Your task to perform on an android device: turn off airplane mode Image 0: 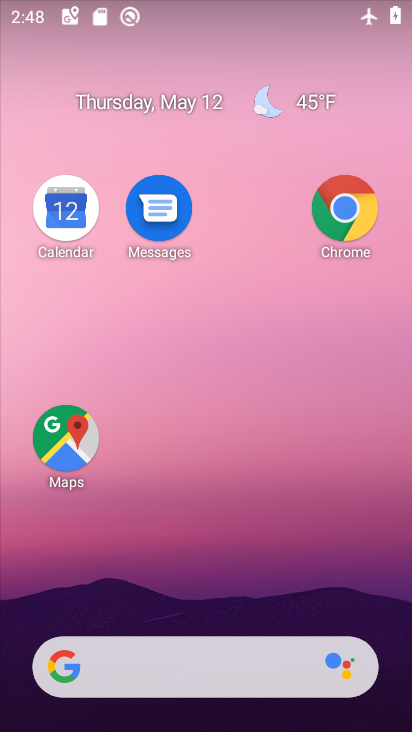
Step 0: drag from (205, 520) to (253, 173)
Your task to perform on an android device: turn off airplane mode Image 1: 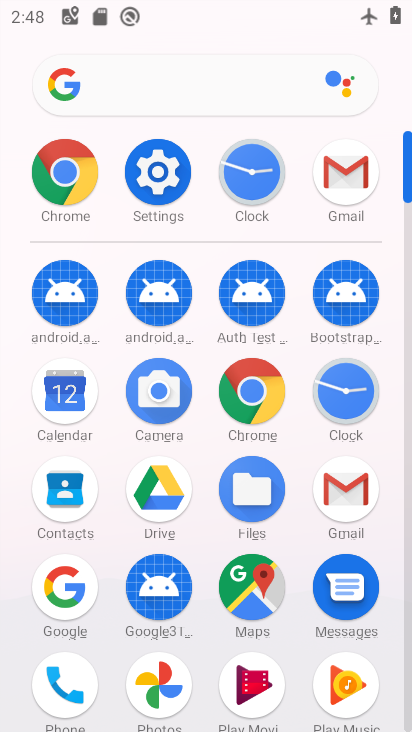
Step 1: click (162, 176)
Your task to perform on an android device: turn off airplane mode Image 2: 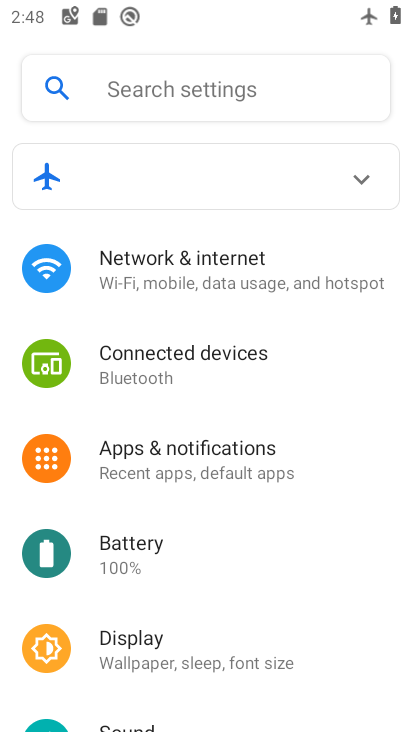
Step 2: click (189, 265)
Your task to perform on an android device: turn off airplane mode Image 3: 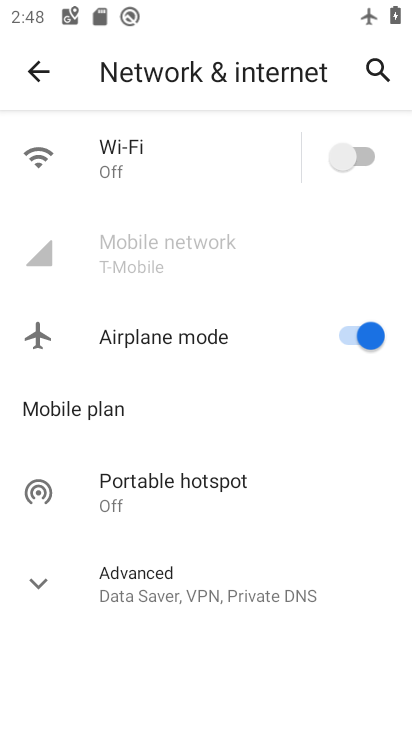
Step 3: click (367, 328)
Your task to perform on an android device: turn off airplane mode Image 4: 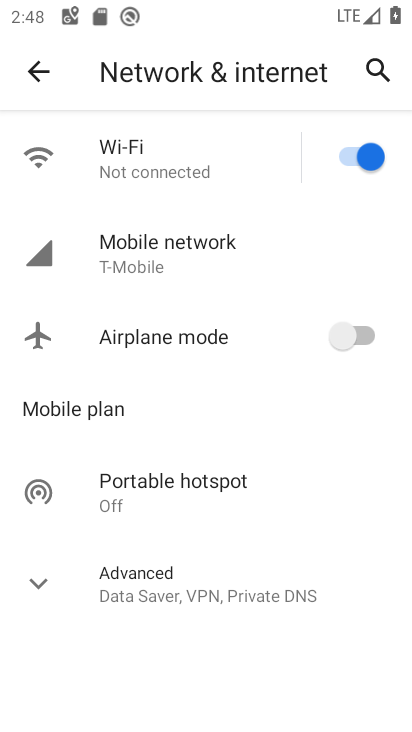
Step 4: task complete